Your task to perform on an android device: toggle data saver in the chrome app Image 0: 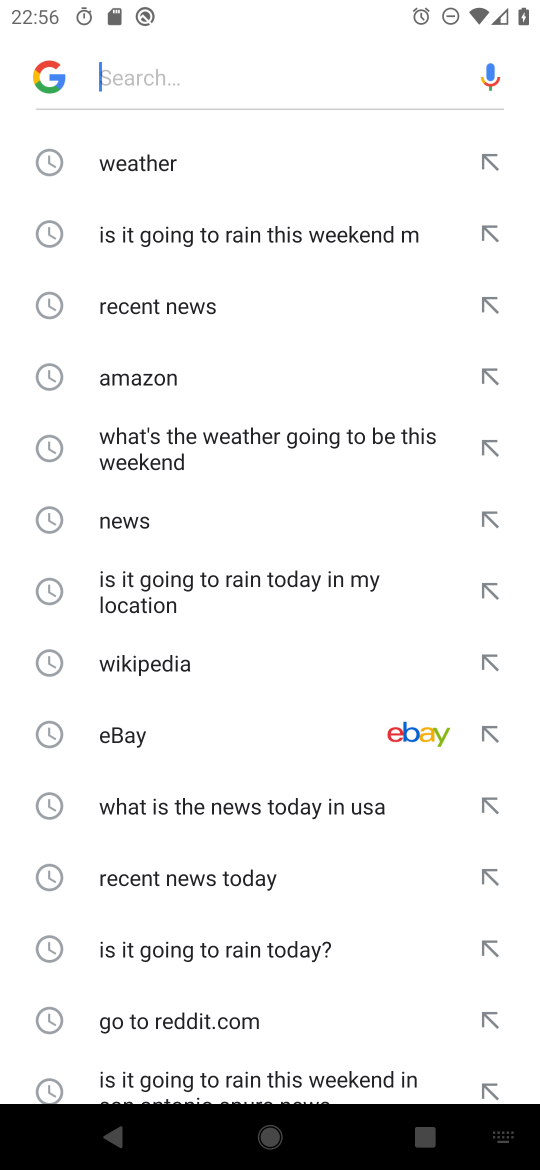
Step 0: press home button
Your task to perform on an android device: toggle data saver in the chrome app Image 1: 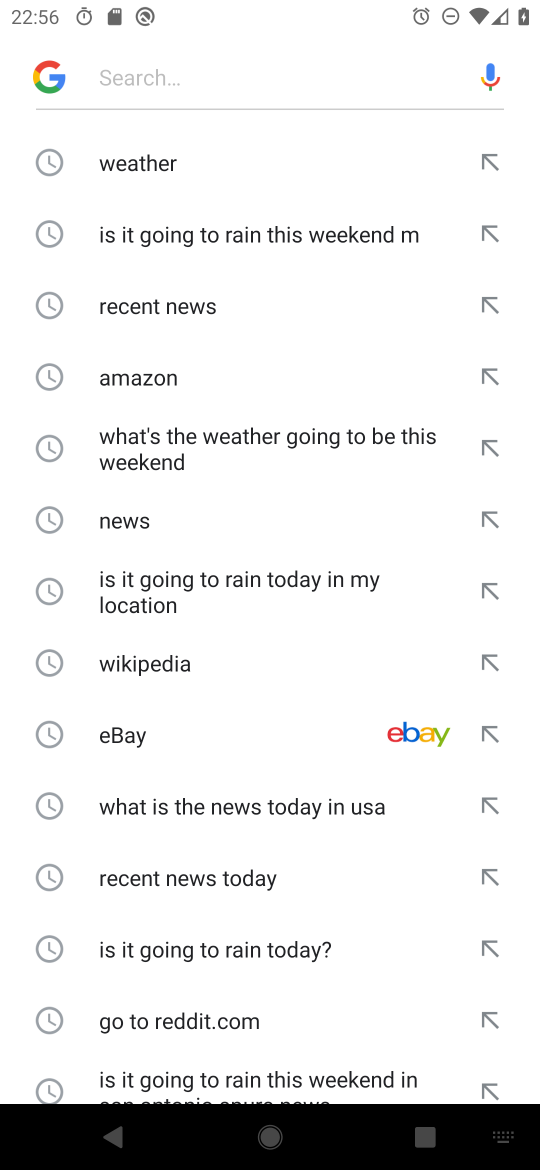
Step 1: press home button
Your task to perform on an android device: toggle data saver in the chrome app Image 2: 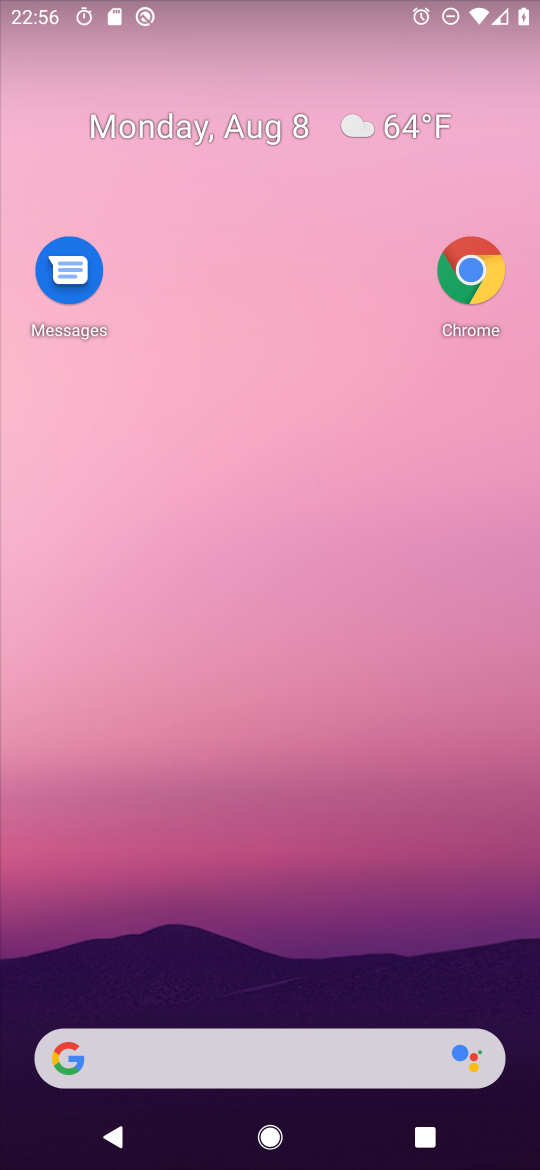
Step 2: drag from (321, 789) to (532, 501)
Your task to perform on an android device: toggle data saver in the chrome app Image 3: 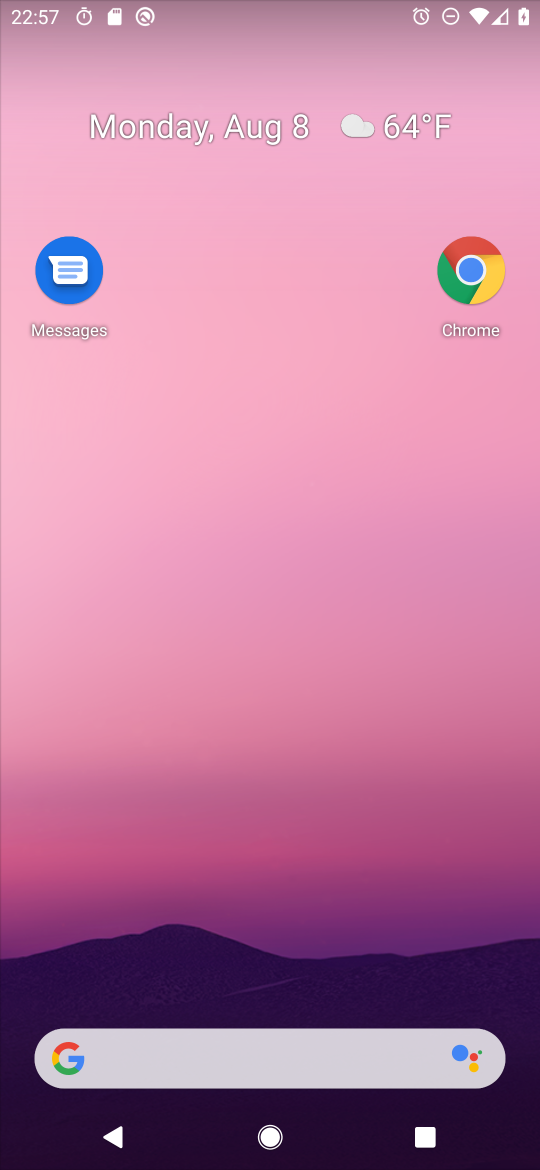
Step 3: click (445, 284)
Your task to perform on an android device: toggle data saver in the chrome app Image 4: 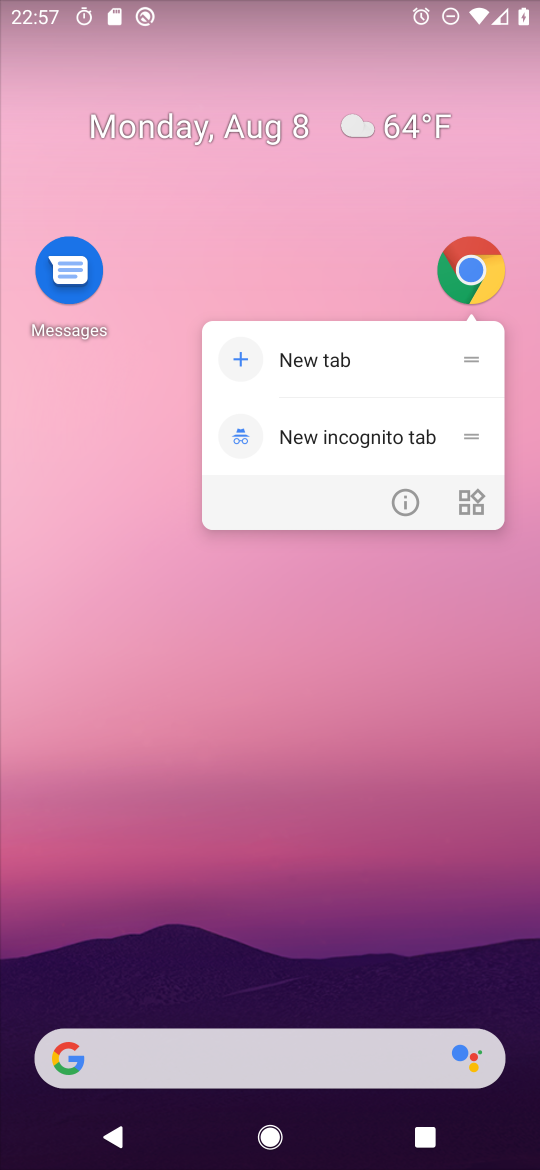
Step 4: click (393, 507)
Your task to perform on an android device: toggle data saver in the chrome app Image 5: 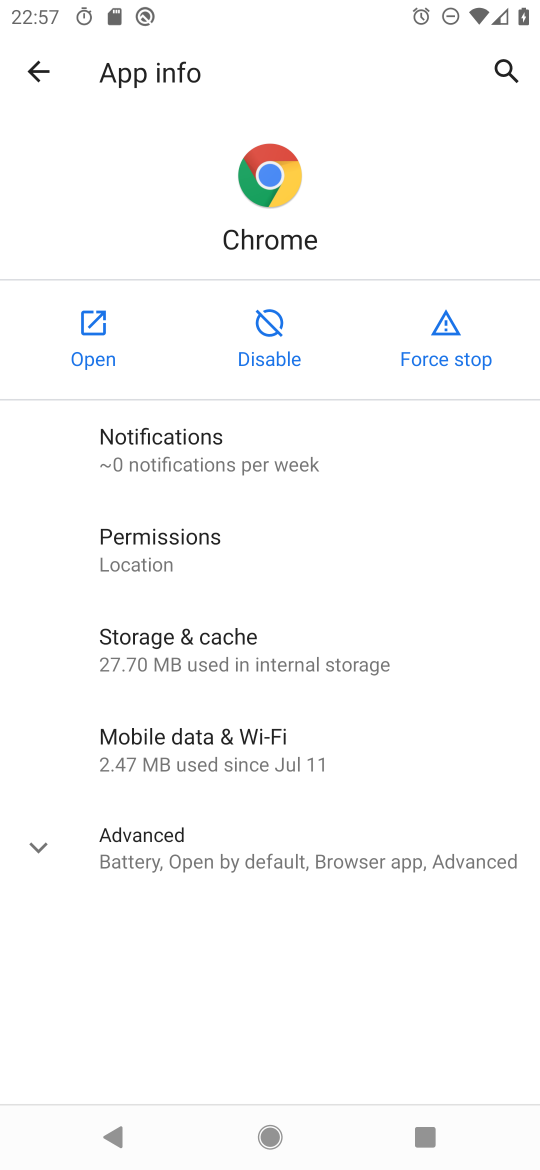
Step 5: click (93, 341)
Your task to perform on an android device: toggle data saver in the chrome app Image 6: 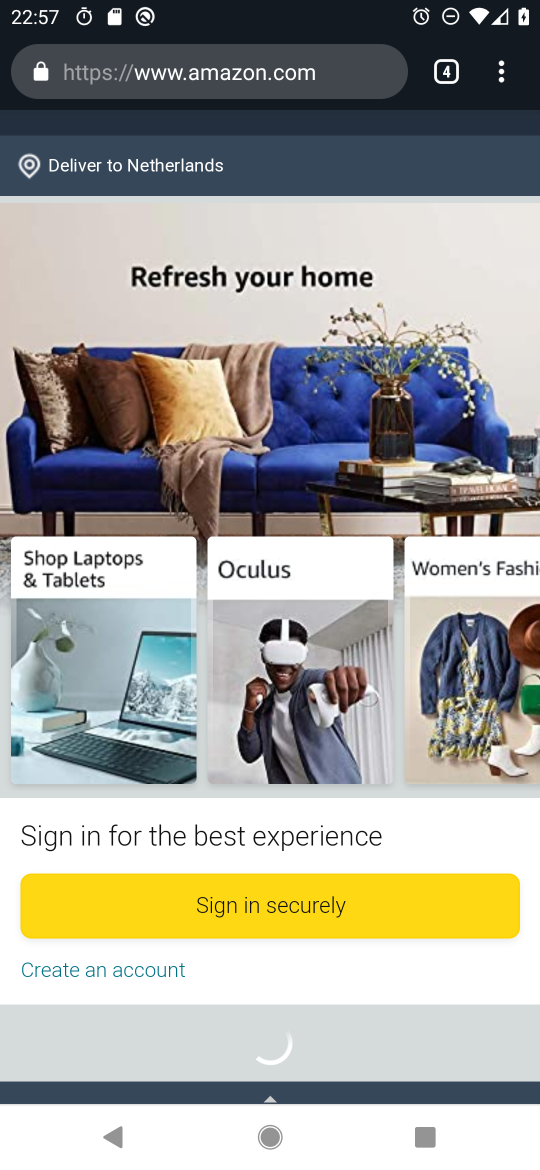
Step 6: drag from (496, 68) to (271, 876)
Your task to perform on an android device: toggle data saver in the chrome app Image 7: 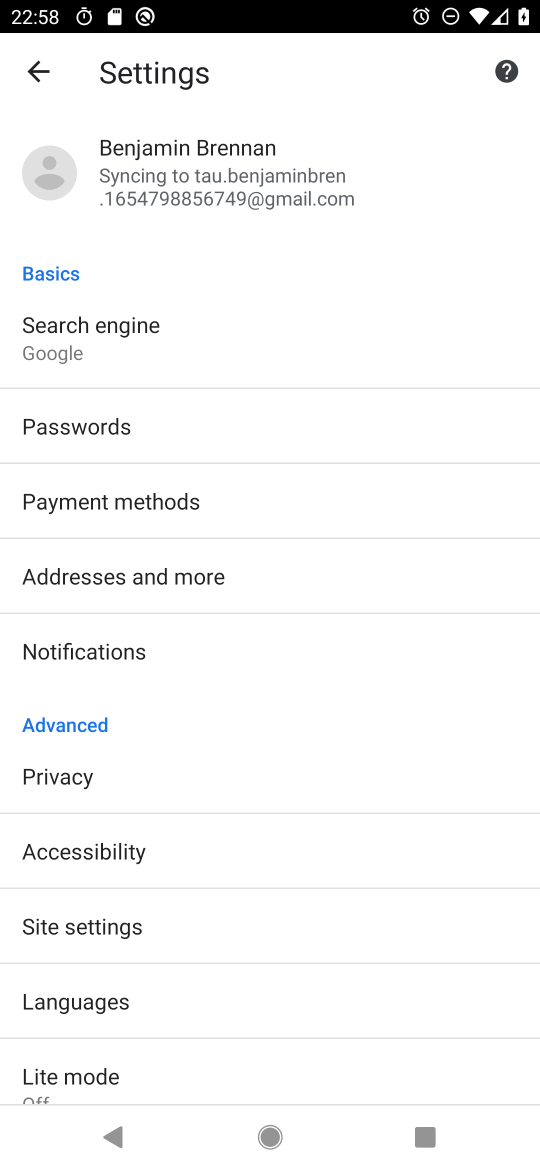
Step 7: drag from (300, 462) to (343, 353)
Your task to perform on an android device: toggle data saver in the chrome app Image 8: 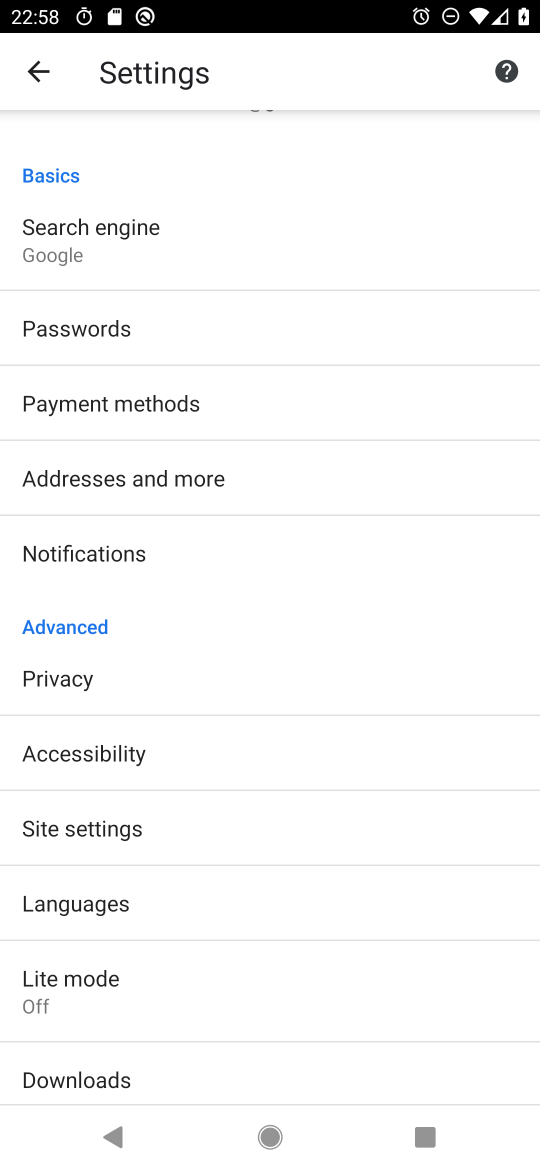
Step 8: click (77, 999)
Your task to perform on an android device: toggle data saver in the chrome app Image 9: 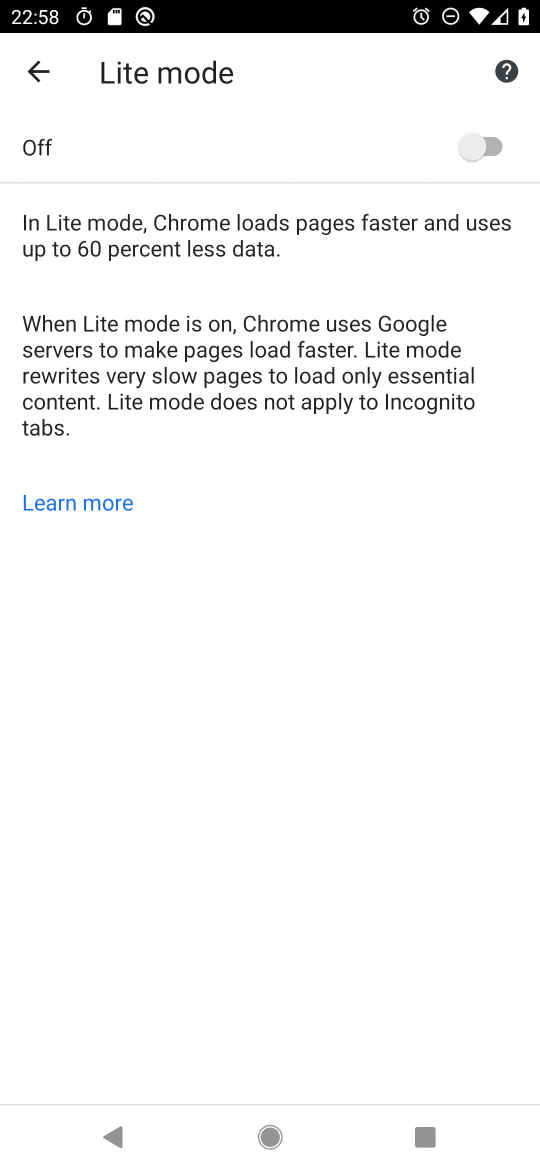
Step 9: click (475, 166)
Your task to perform on an android device: toggle data saver in the chrome app Image 10: 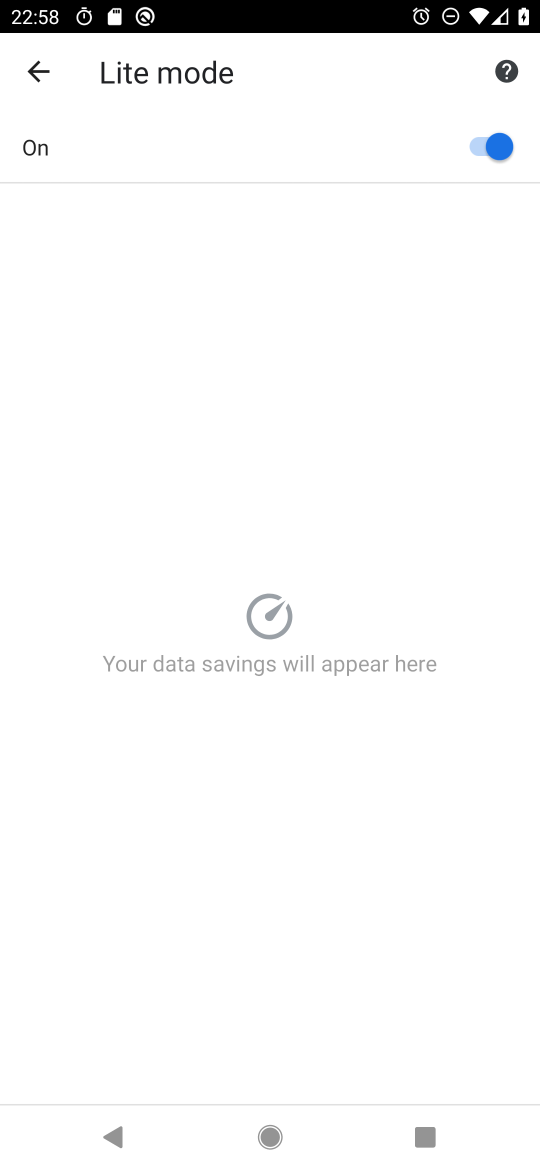
Step 10: task complete